Your task to perform on an android device: Find coffee shops on Maps Image 0: 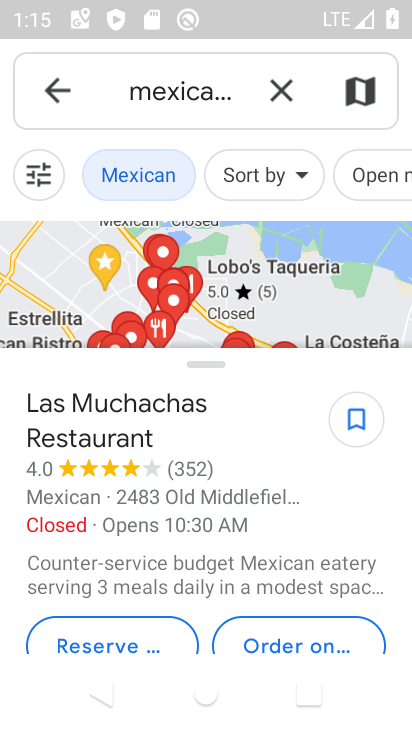
Step 0: click (282, 73)
Your task to perform on an android device: Find coffee shops on Maps Image 1: 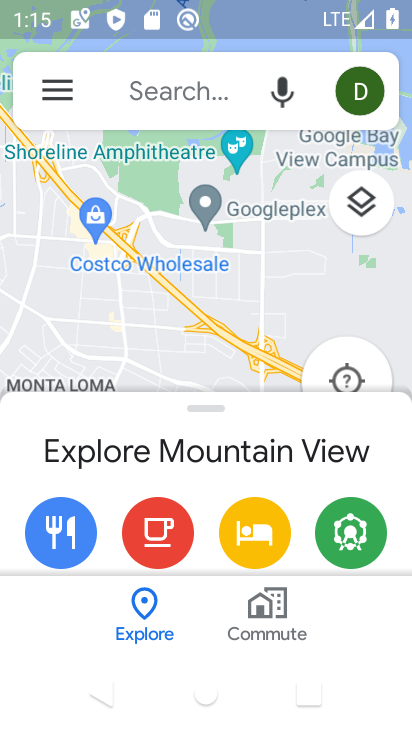
Step 1: click (162, 96)
Your task to perform on an android device: Find coffee shops on Maps Image 2: 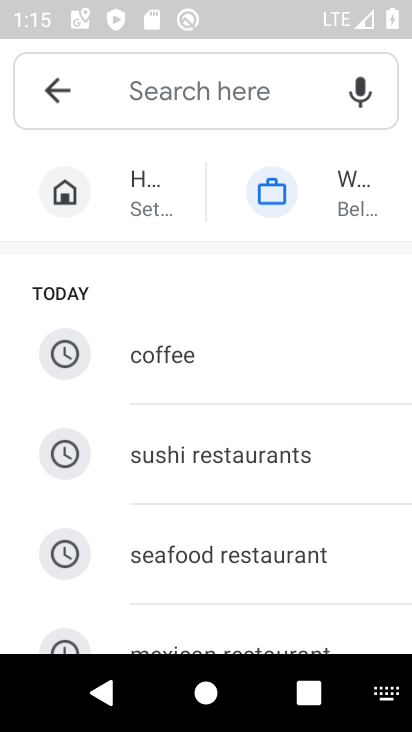
Step 2: click (178, 364)
Your task to perform on an android device: Find coffee shops on Maps Image 3: 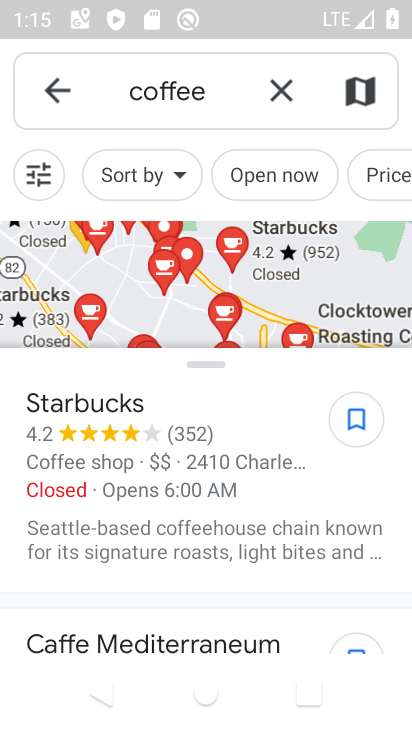
Step 3: task complete